Your task to perform on an android device: Open Google Chrome Image 0: 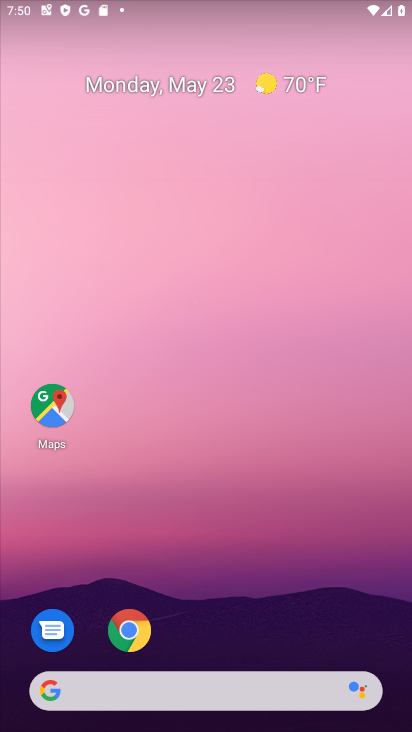
Step 0: drag from (292, 690) to (314, 150)
Your task to perform on an android device: Open Google Chrome Image 1: 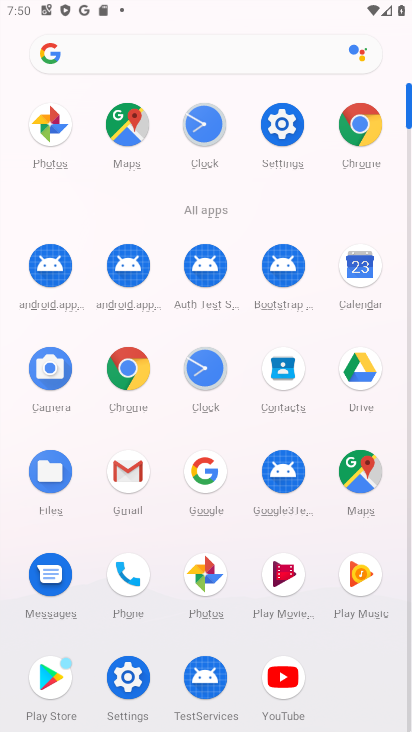
Step 1: click (371, 129)
Your task to perform on an android device: Open Google Chrome Image 2: 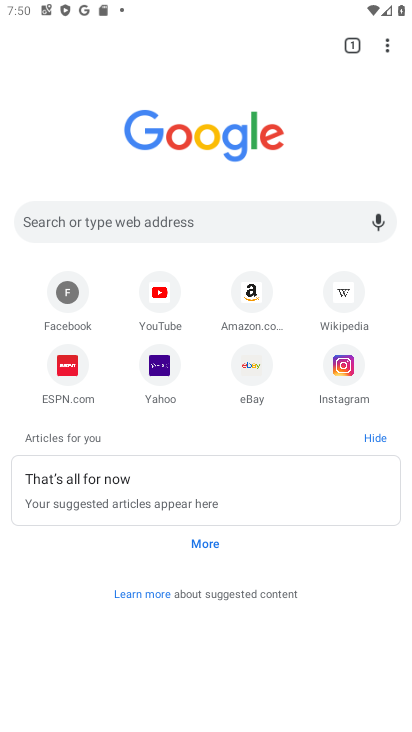
Step 2: task complete